Your task to perform on an android device: Go to sound settings Image 0: 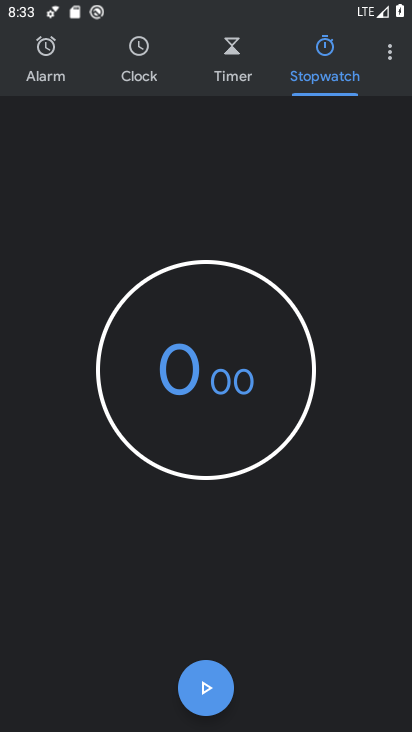
Step 0: press home button
Your task to perform on an android device: Go to sound settings Image 1: 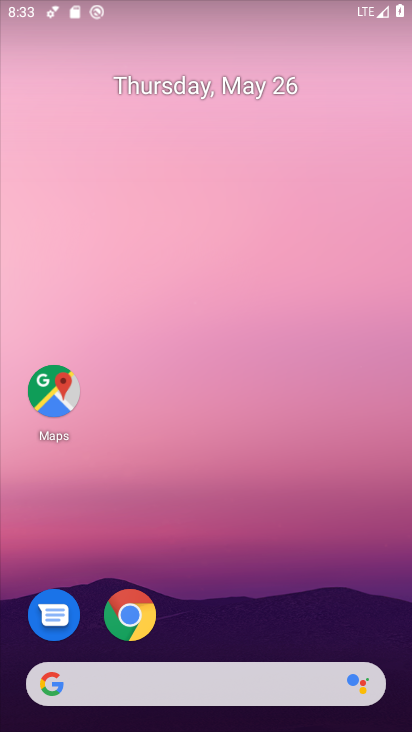
Step 1: drag from (184, 607) to (215, 251)
Your task to perform on an android device: Go to sound settings Image 2: 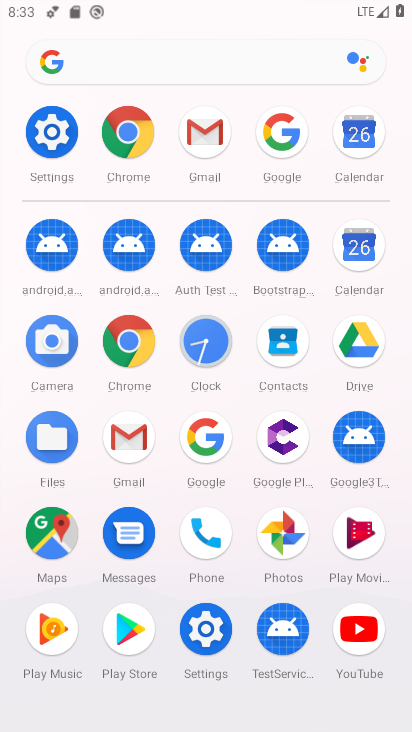
Step 2: click (53, 128)
Your task to perform on an android device: Go to sound settings Image 3: 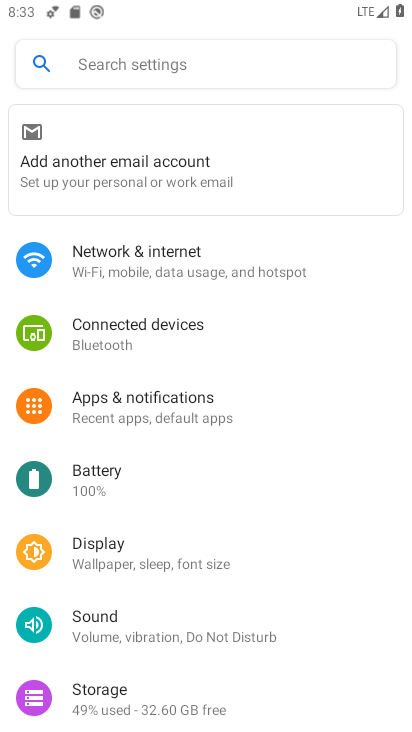
Step 3: click (125, 613)
Your task to perform on an android device: Go to sound settings Image 4: 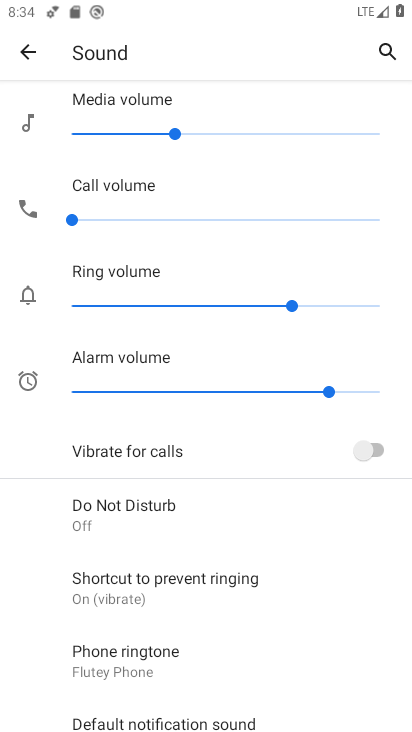
Step 4: task complete